Your task to perform on an android device: snooze an email in the gmail app Image 0: 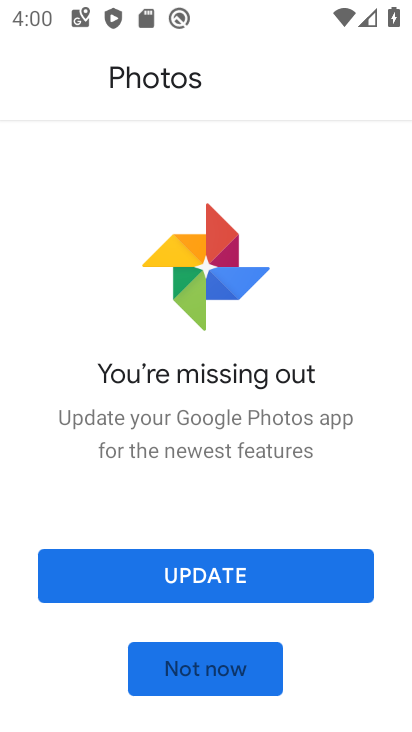
Step 0: click (119, 566)
Your task to perform on an android device: snooze an email in the gmail app Image 1: 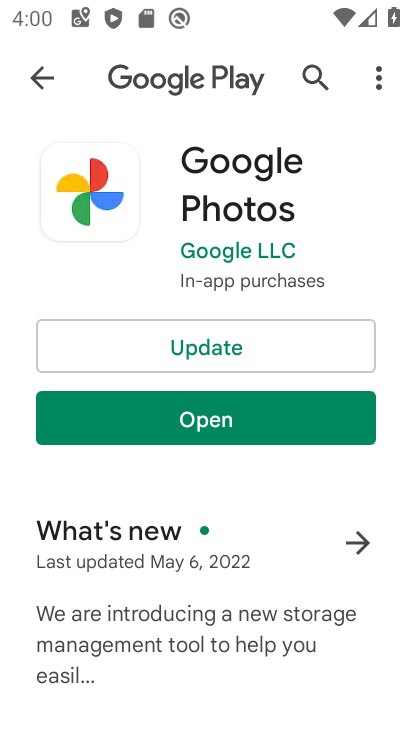
Step 1: click (286, 343)
Your task to perform on an android device: snooze an email in the gmail app Image 2: 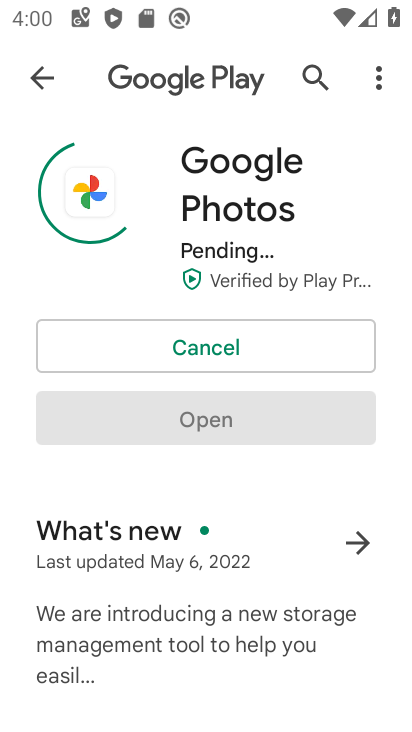
Step 2: press home button
Your task to perform on an android device: snooze an email in the gmail app Image 3: 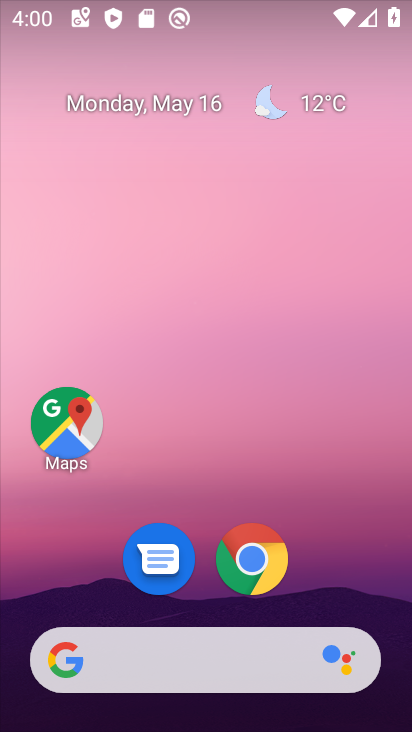
Step 3: drag from (350, 568) to (316, 20)
Your task to perform on an android device: snooze an email in the gmail app Image 4: 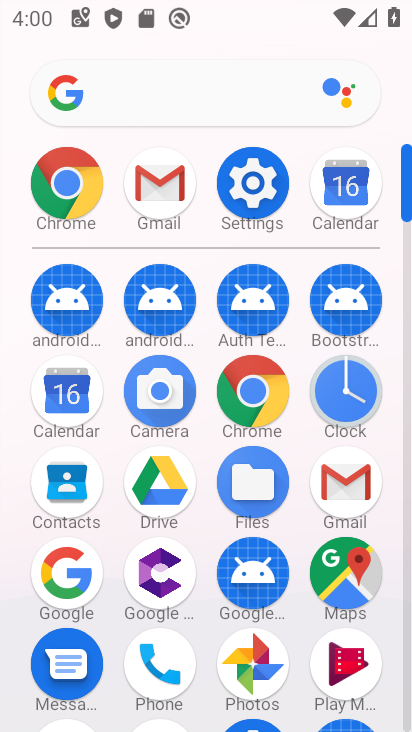
Step 4: click (154, 183)
Your task to perform on an android device: snooze an email in the gmail app Image 5: 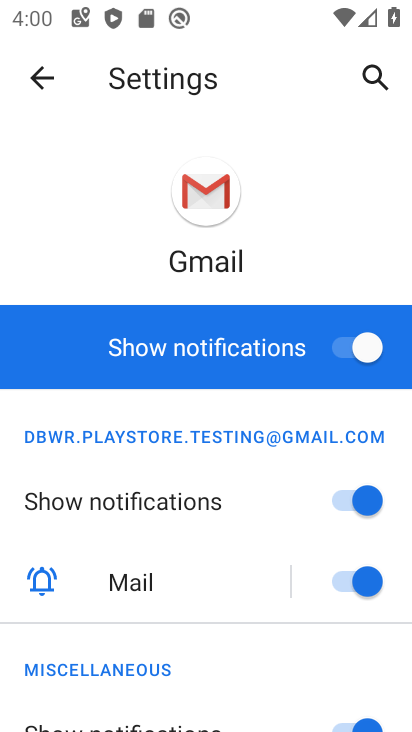
Step 5: click (26, 69)
Your task to perform on an android device: snooze an email in the gmail app Image 6: 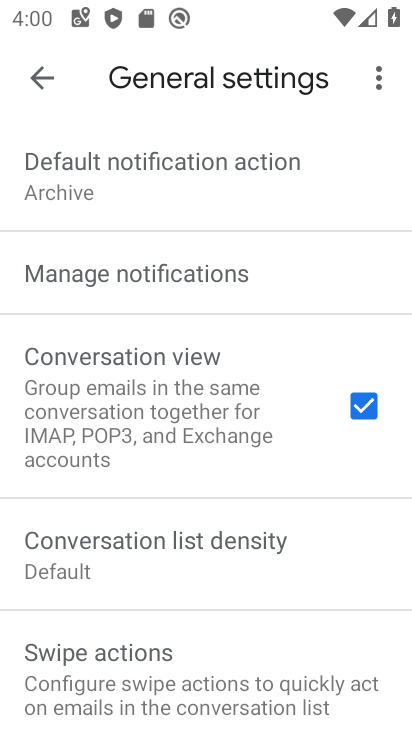
Step 6: click (40, 88)
Your task to perform on an android device: snooze an email in the gmail app Image 7: 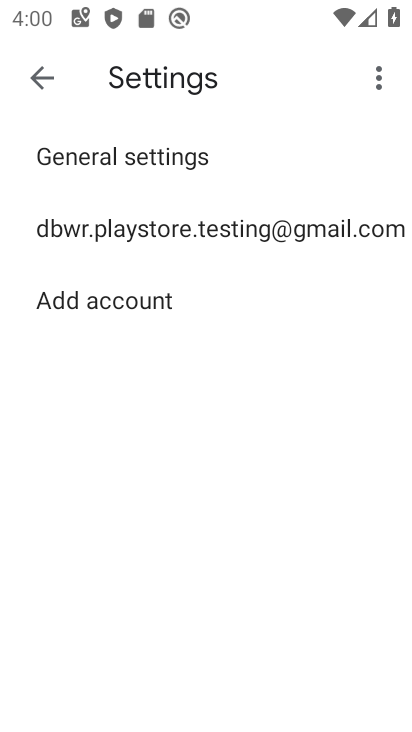
Step 7: click (40, 88)
Your task to perform on an android device: snooze an email in the gmail app Image 8: 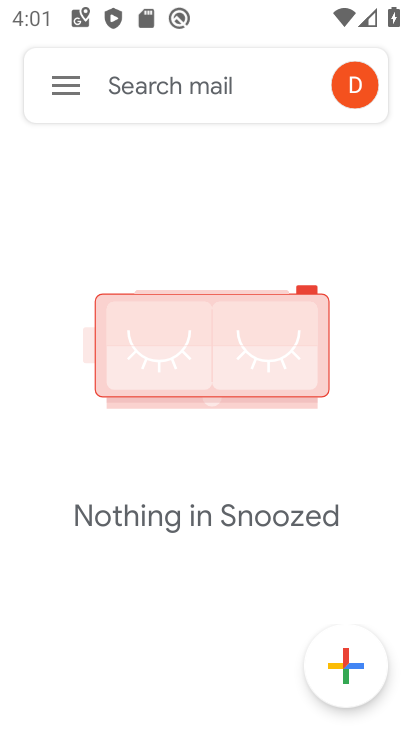
Step 8: click (40, 88)
Your task to perform on an android device: snooze an email in the gmail app Image 9: 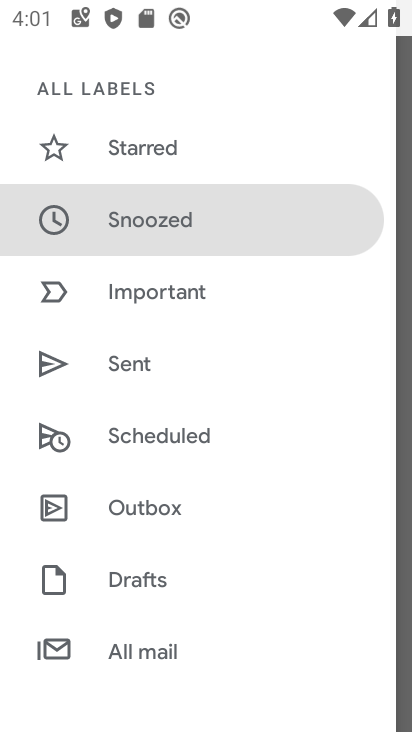
Step 9: click (184, 647)
Your task to perform on an android device: snooze an email in the gmail app Image 10: 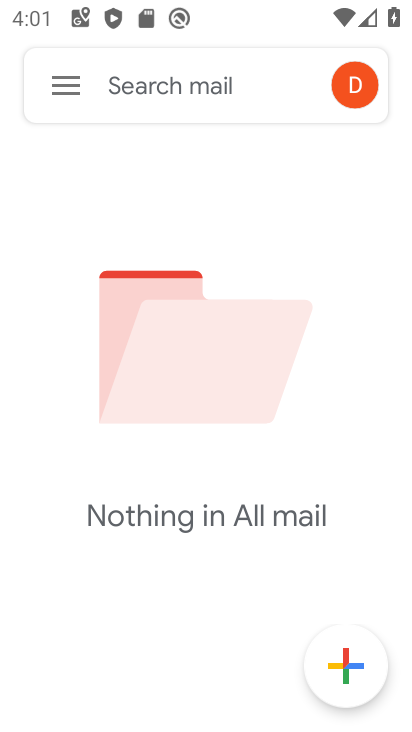
Step 10: task complete